Your task to perform on an android device: What's the weather going to be this weekend? Image 0: 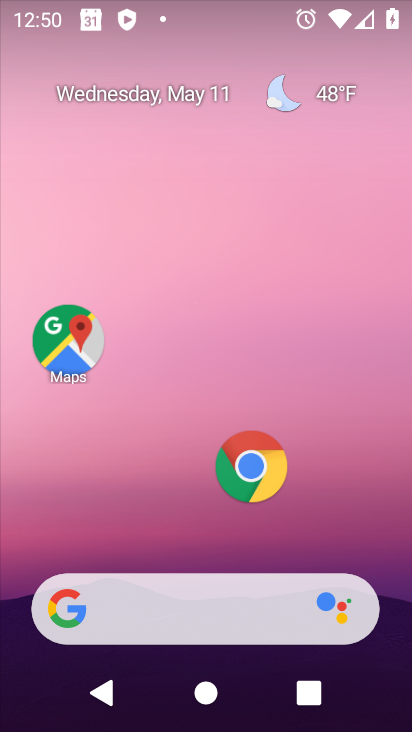
Step 0: click (326, 93)
Your task to perform on an android device: What's the weather going to be this weekend? Image 1: 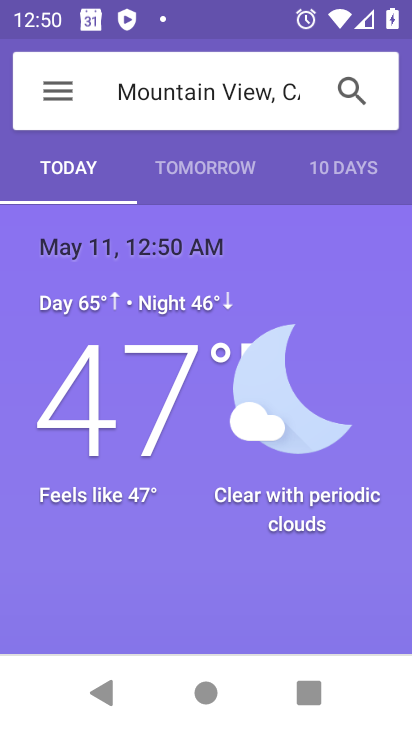
Step 1: click (339, 169)
Your task to perform on an android device: What's the weather going to be this weekend? Image 2: 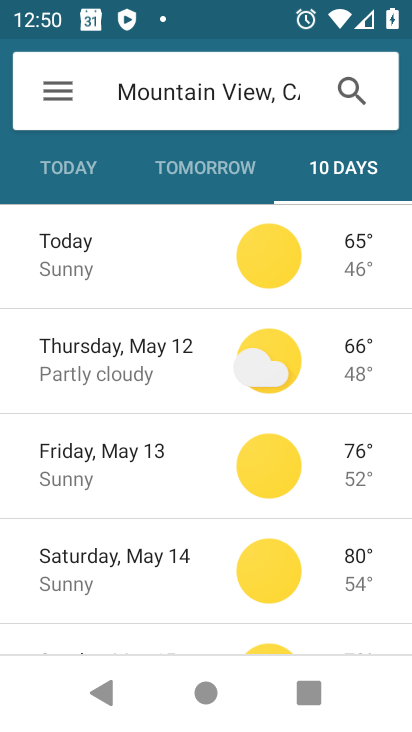
Step 2: task complete